Your task to perform on an android device: Open sound settings Image 0: 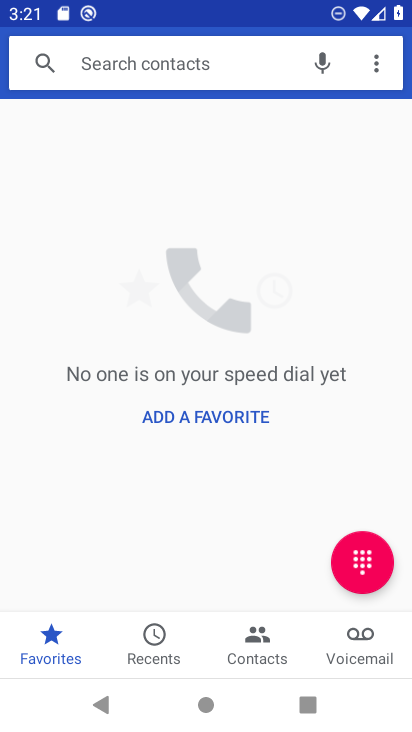
Step 0: press home button
Your task to perform on an android device: Open sound settings Image 1: 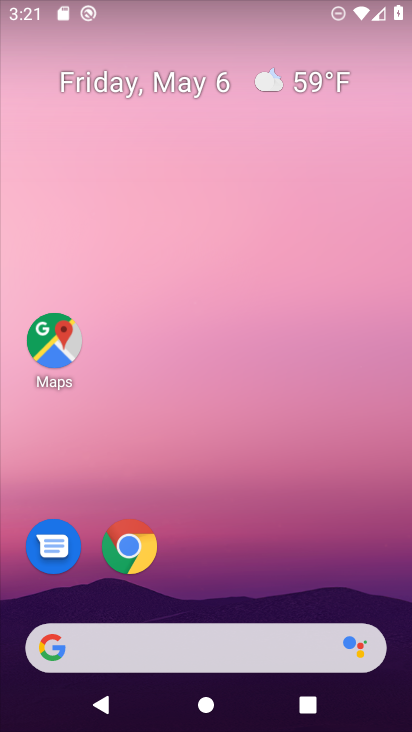
Step 1: drag from (151, 624) to (170, 263)
Your task to perform on an android device: Open sound settings Image 2: 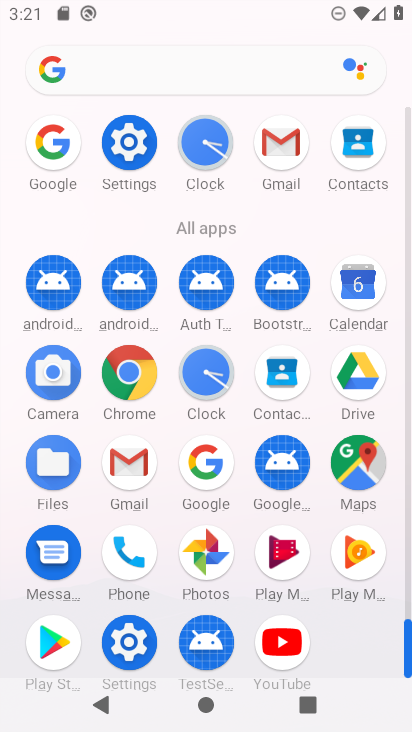
Step 2: click (122, 146)
Your task to perform on an android device: Open sound settings Image 3: 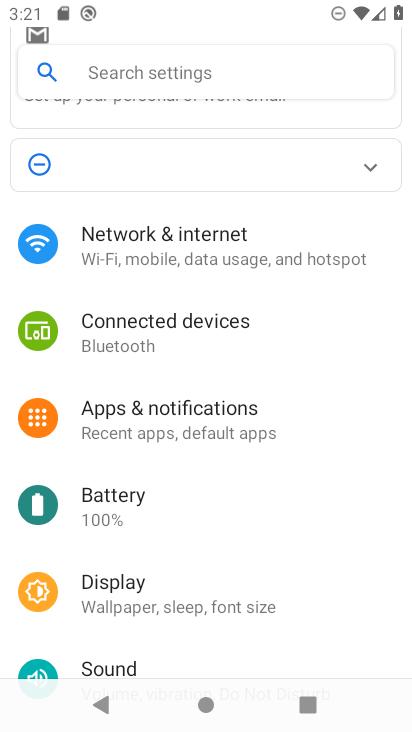
Step 3: drag from (139, 649) to (152, 383)
Your task to perform on an android device: Open sound settings Image 4: 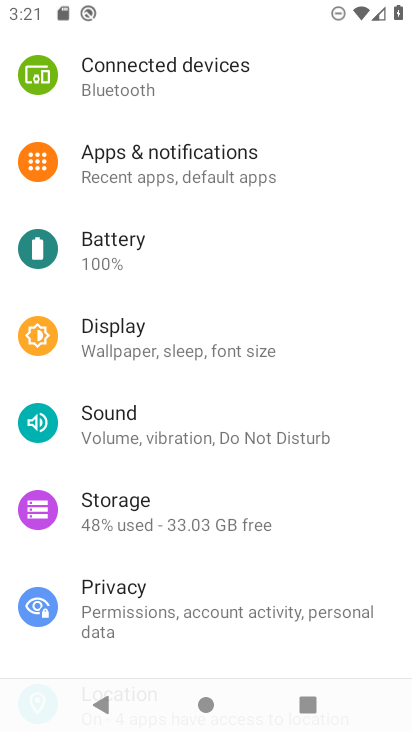
Step 4: click (117, 419)
Your task to perform on an android device: Open sound settings Image 5: 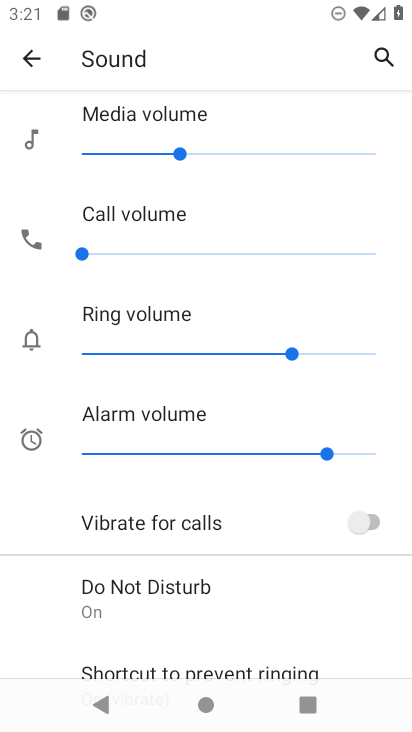
Step 5: drag from (197, 667) to (169, 369)
Your task to perform on an android device: Open sound settings Image 6: 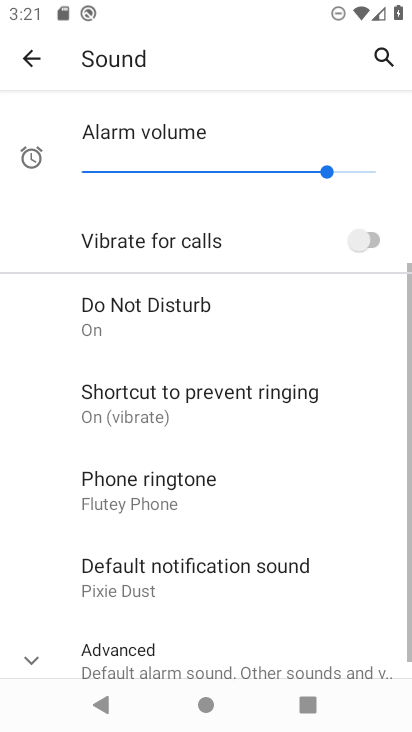
Step 6: drag from (185, 633) to (175, 366)
Your task to perform on an android device: Open sound settings Image 7: 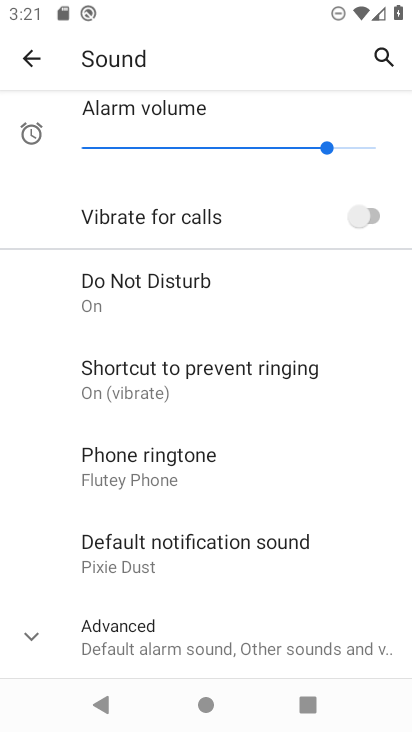
Step 7: click (135, 645)
Your task to perform on an android device: Open sound settings Image 8: 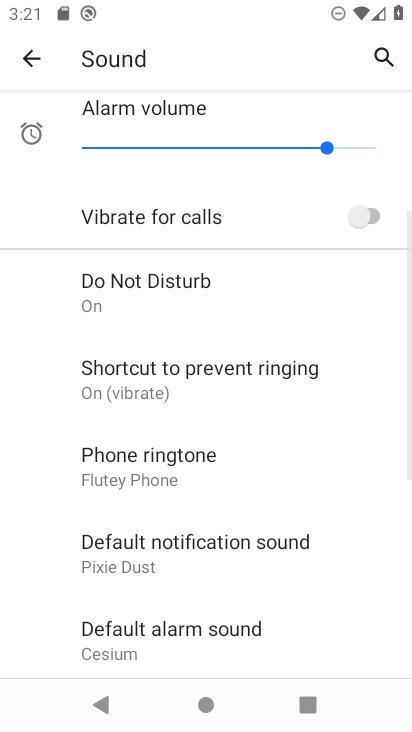
Step 8: task complete